Your task to perform on an android device: create a new album in the google photos Image 0: 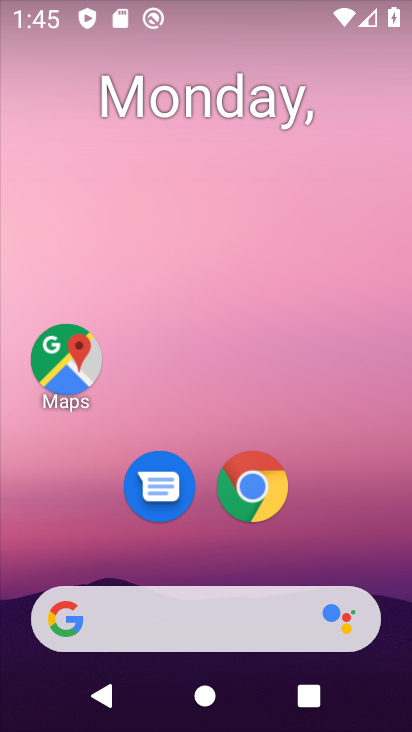
Step 0: drag from (195, 538) to (259, 111)
Your task to perform on an android device: create a new album in the google photos Image 1: 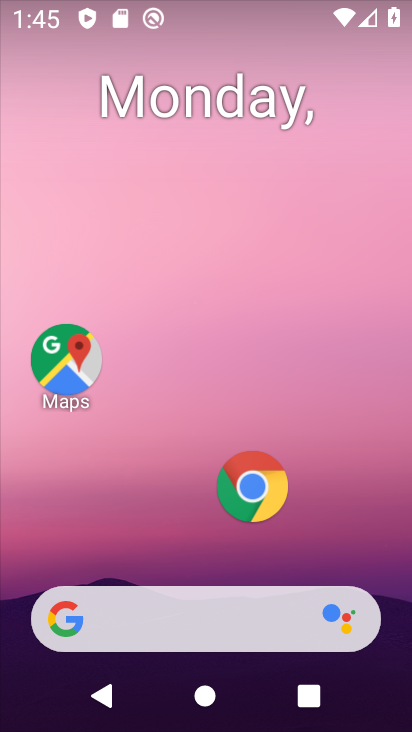
Step 1: drag from (145, 561) to (202, 72)
Your task to perform on an android device: create a new album in the google photos Image 2: 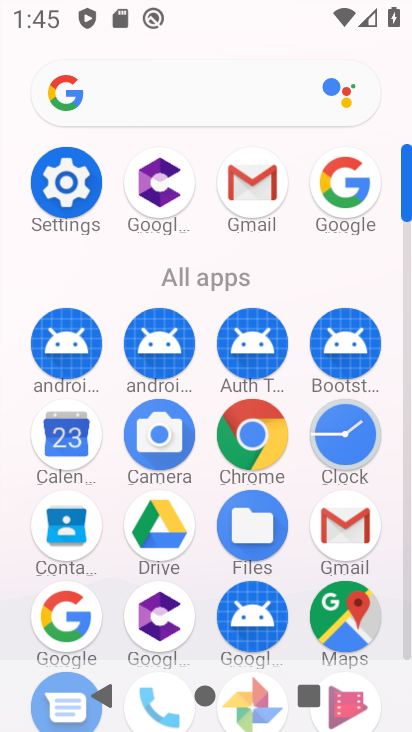
Step 2: drag from (303, 592) to (313, 333)
Your task to perform on an android device: create a new album in the google photos Image 3: 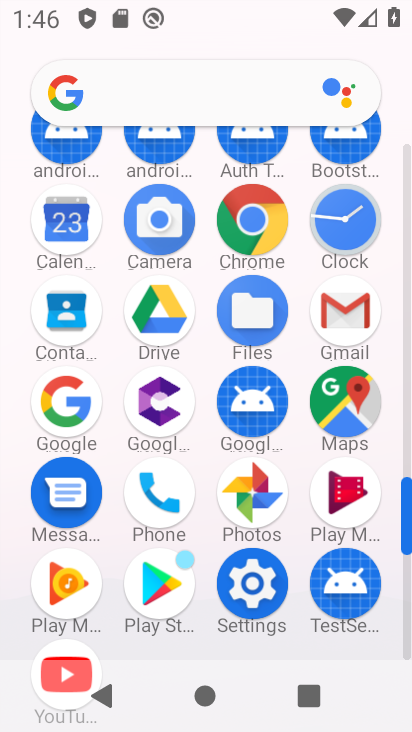
Step 3: click (259, 503)
Your task to perform on an android device: create a new album in the google photos Image 4: 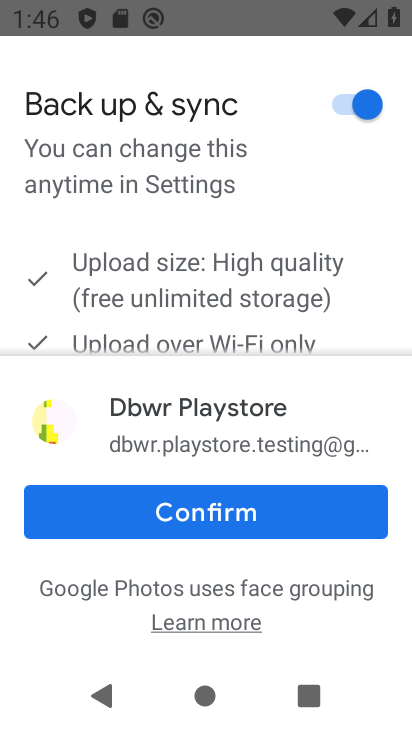
Step 4: click (312, 515)
Your task to perform on an android device: create a new album in the google photos Image 5: 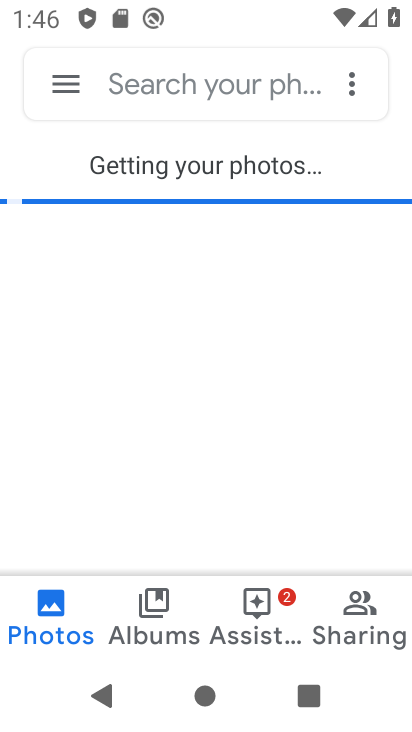
Step 5: click (175, 622)
Your task to perform on an android device: create a new album in the google photos Image 6: 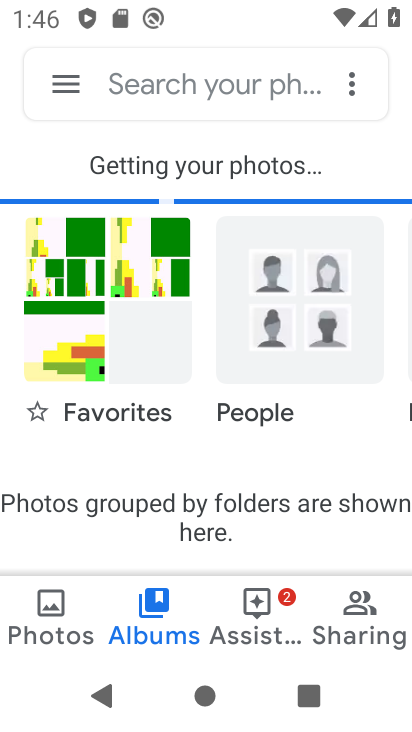
Step 6: drag from (215, 501) to (236, 210)
Your task to perform on an android device: create a new album in the google photos Image 7: 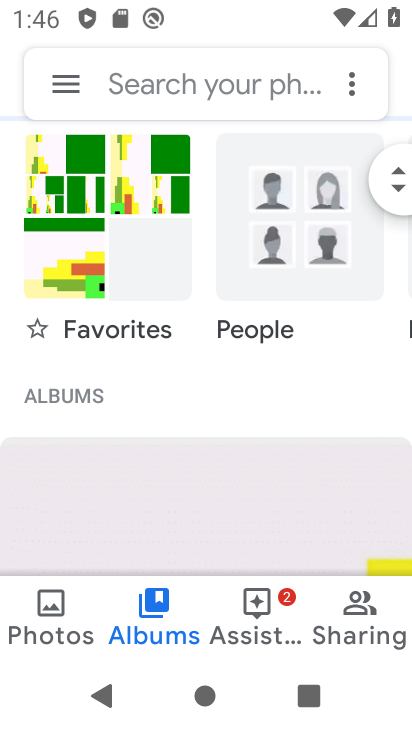
Step 7: click (351, 93)
Your task to perform on an android device: create a new album in the google photos Image 8: 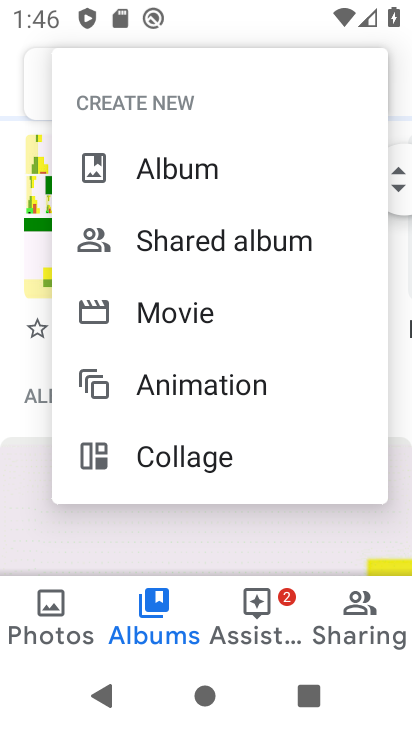
Step 8: click (184, 181)
Your task to perform on an android device: create a new album in the google photos Image 9: 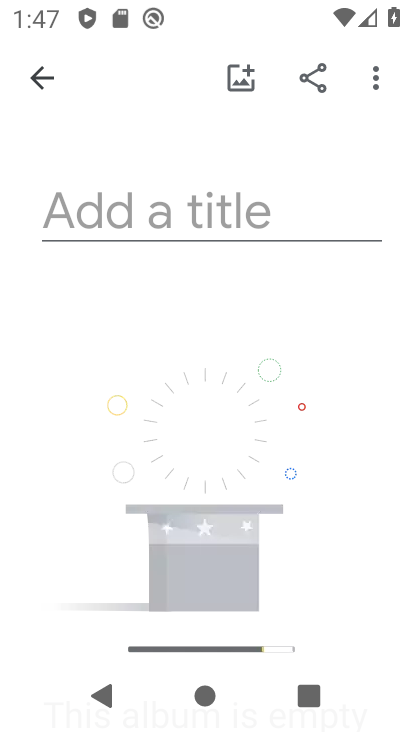
Step 9: click (169, 223)
Your task to perform on an android device: create a new album in the google photos Image 10: 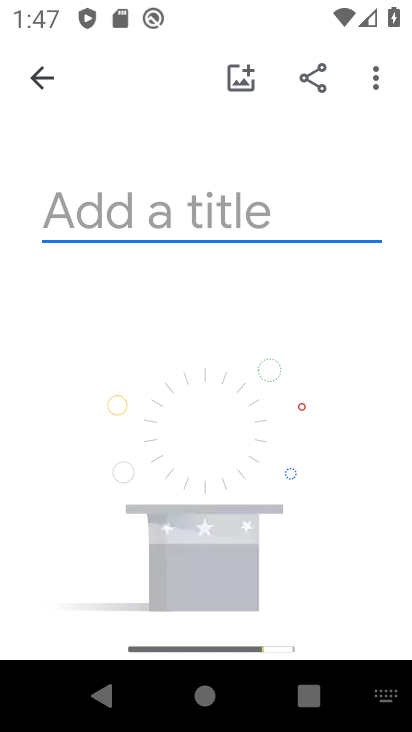
Step 10: type "bhjnkmlopiuy"
Your task to perform on an android device: create a new album in the google photos Image 11: 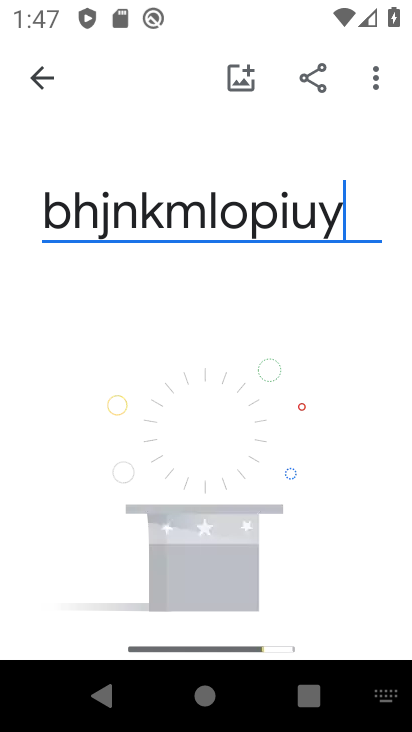
Step 11: click (230, 77)
Your task to perform on an android device: create a new album in the google photos Image 12: 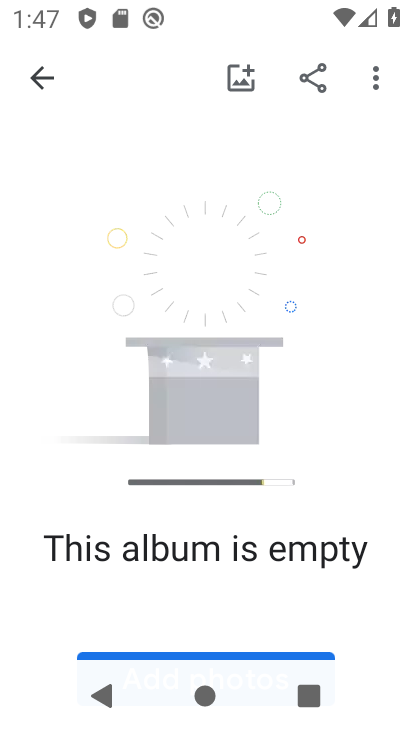
Step 12: click (250, 67)
Your task to perform on an android device: create a new album in the google photos Image 13: 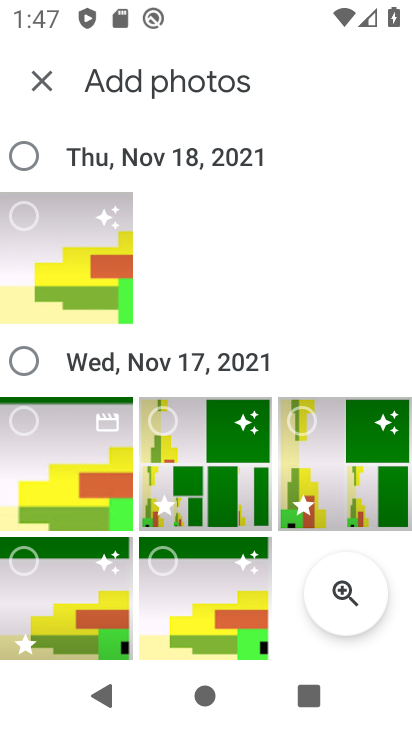
Step 13: click (89, 249)
Your task to perform on an android device: create a new album in the google photos Image 14: 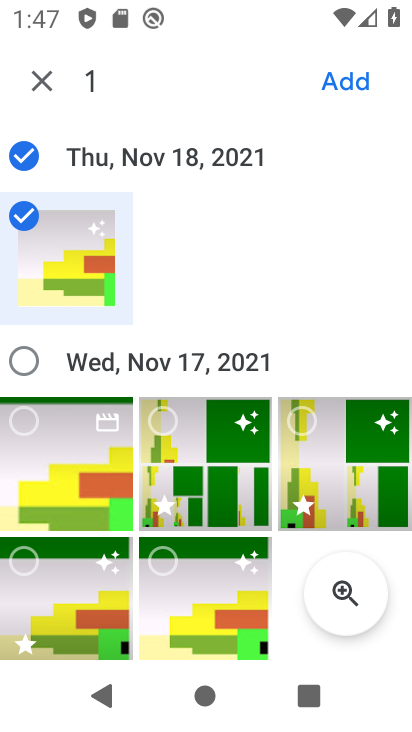
Step 14: click (353, 65)
Your task to perform on an android device: create a new album in the google photos Image 15: 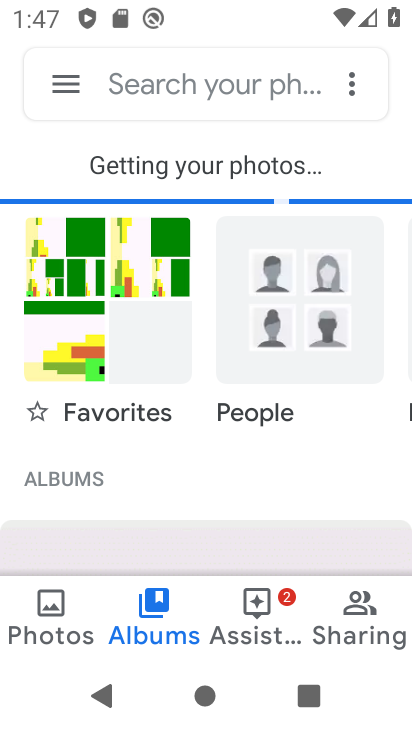
Step 15: task complete